Your task to perform on an android device: turn off wifi Image 0: 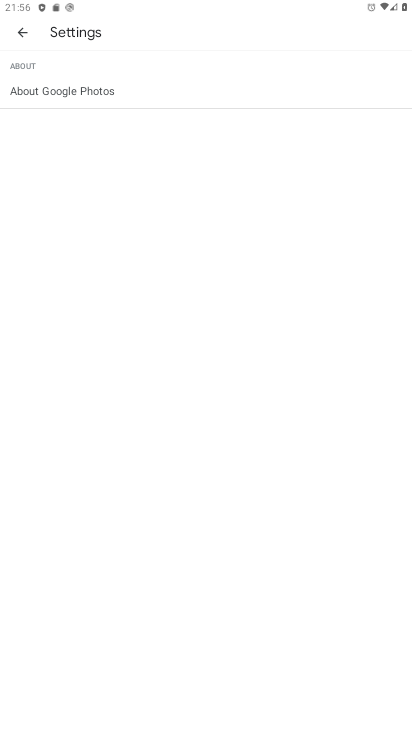
Step 0: press home button
Your task to perform on an android device: turn off wifi Image 1: 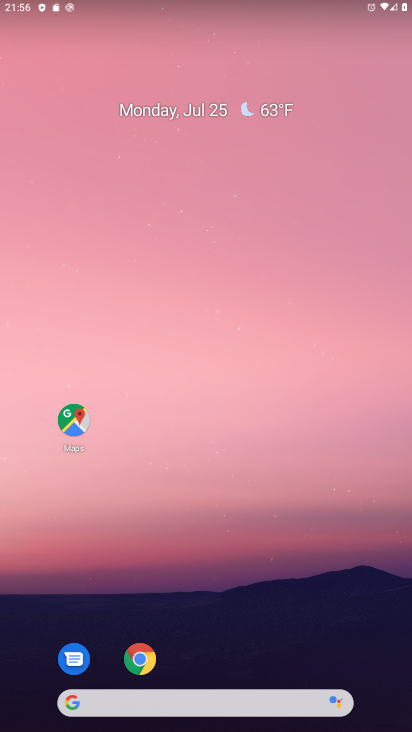
Step 1: drag from (203, 724) to (203, 145)
Your task to perform on an android device: turn off wifi Image 2: 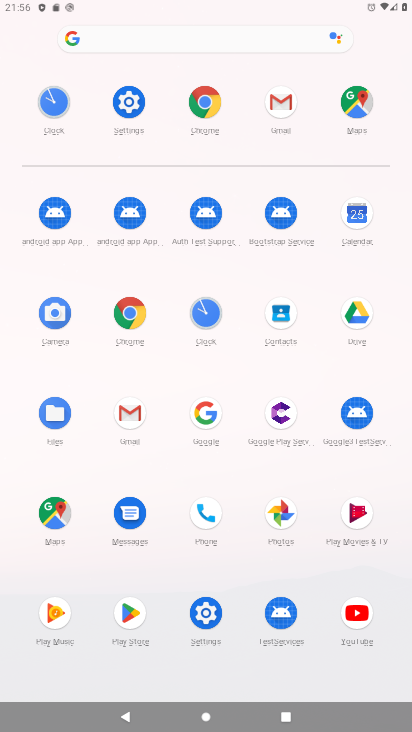
Step 2: click (129, 97)
Your task to perform on an android device: turn off wifi Image 3: 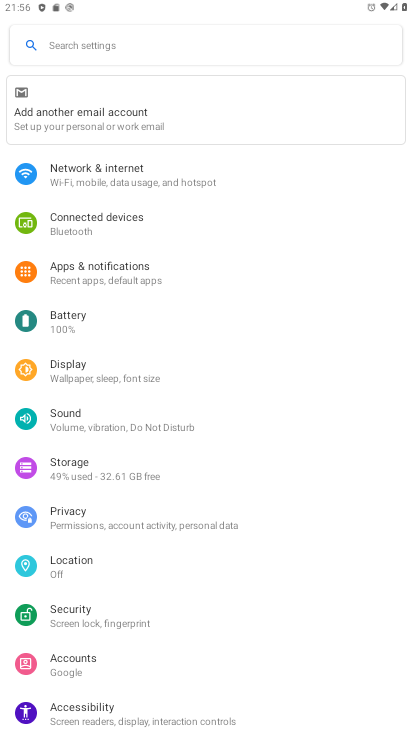
Step 3: click (91, 178)
Your task to perform on an android device: turn off wifi Image 4: 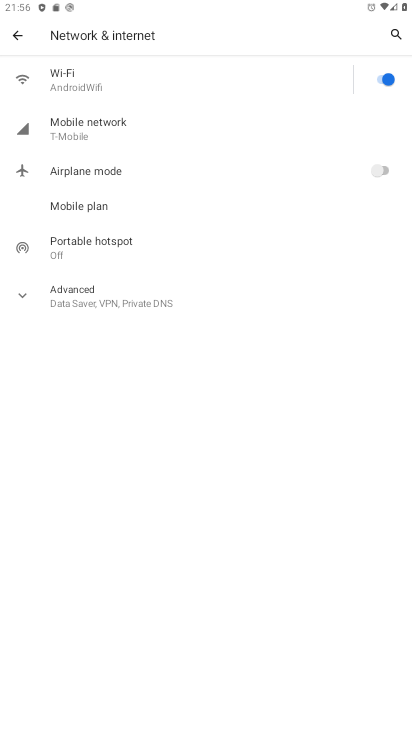
Step 4: click (375, 77)
Your task to perform on an android device: turn off wifi Image 5: 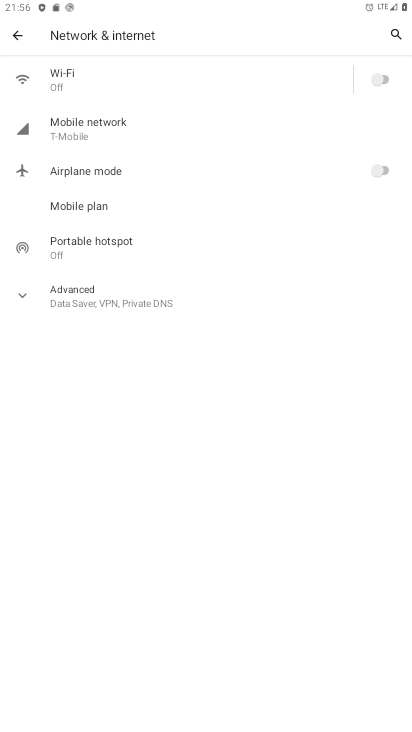
Step 5: task complete